Your task to perform on an android device: Show me popular videos on Youtube Image 0: 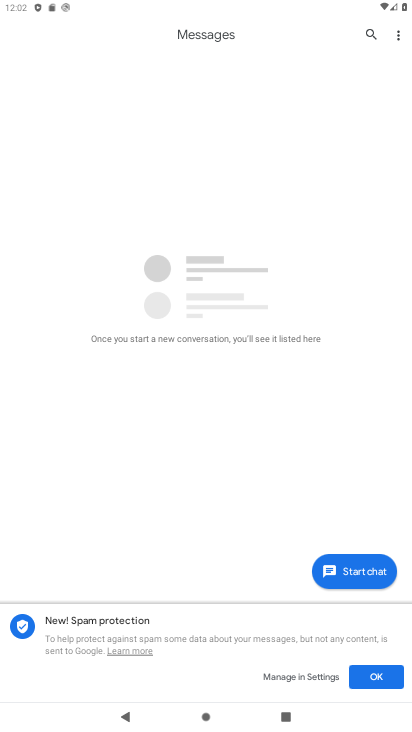
Step 0: press home button
Your task to perform on an android device: Show me popular videos on Youtube Image 1: 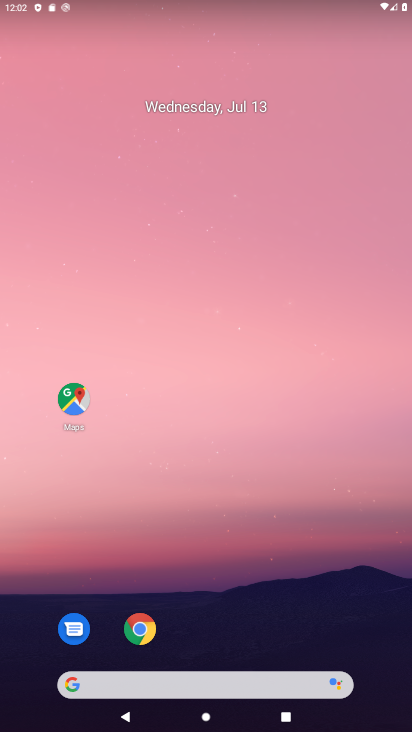
Step 1: drag from (213, 641) to (227, 166)
Your task to perform on an android device: Show me popular videos on Youtube Image 2: 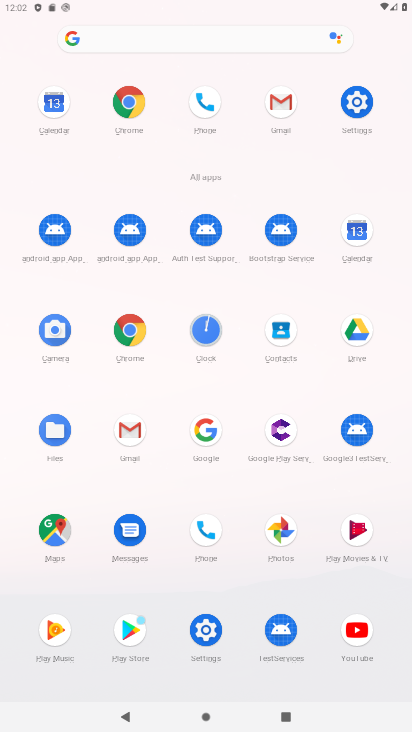
Step 2: click (350, 615)
Your task to perform on an android device: Show me popular videos on Youtube Image 3: 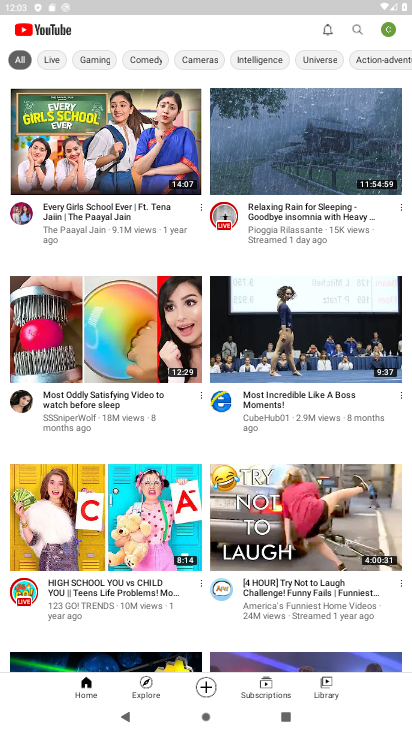
Step 3: click (352, 26)
Your task to perform on an android device: Show me popular videos on Youtube Image 4: 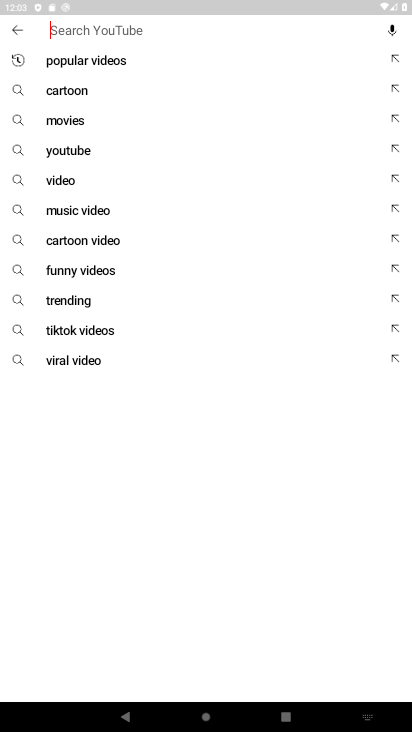
Step 4: click (131, 55)
Your task to perform on an android device: Show me popular videos on Youtube Image 5: 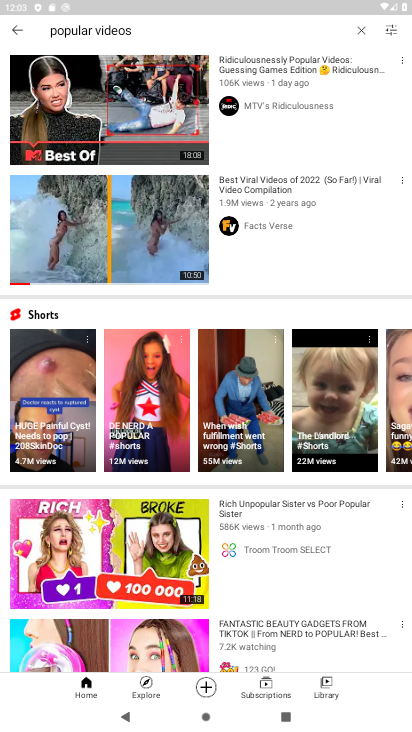
Step 5: task complete